Your task to perform on an android device: Open my contact list Image 0: 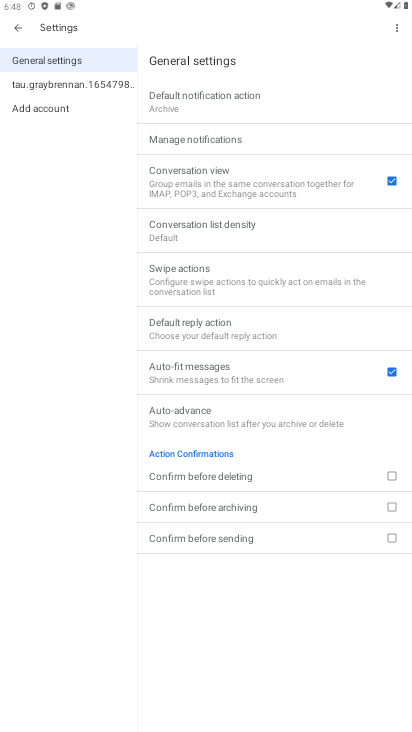
Step 0: press home button
Your task to perform on an android device: Open my contact list Image 1: 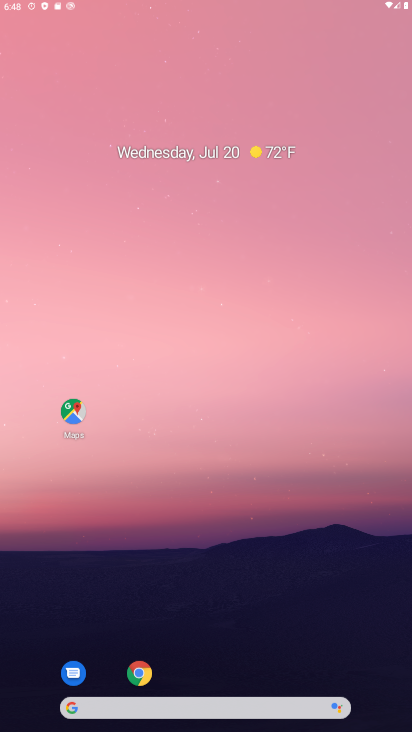
Step 1: drag from (394, 663) to (281, 29)
Your task to perform on an android device: Open my contact list Image 2: 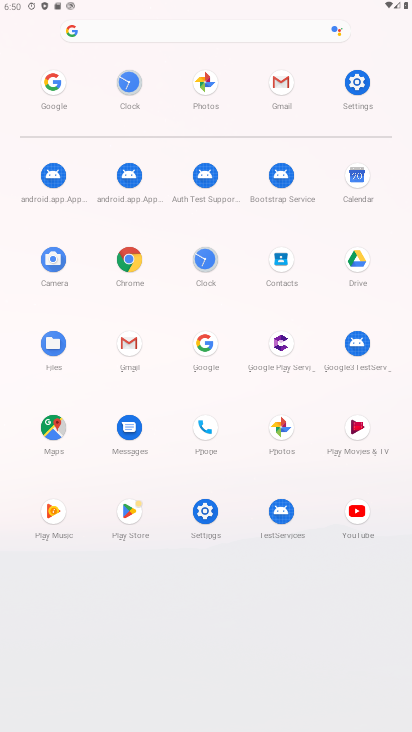
Step 2: click (209, 431)
Your task to perform on an android device: Open my contact list Image 3: 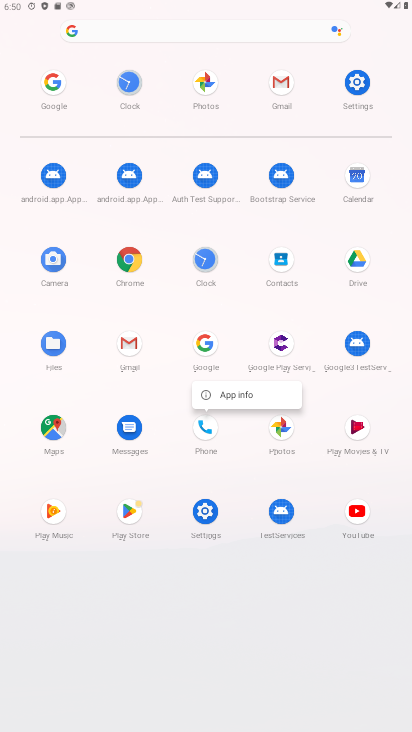
Step 3: click (281, 259)
Your task to perform on an android device: Open my contact list Image 4: 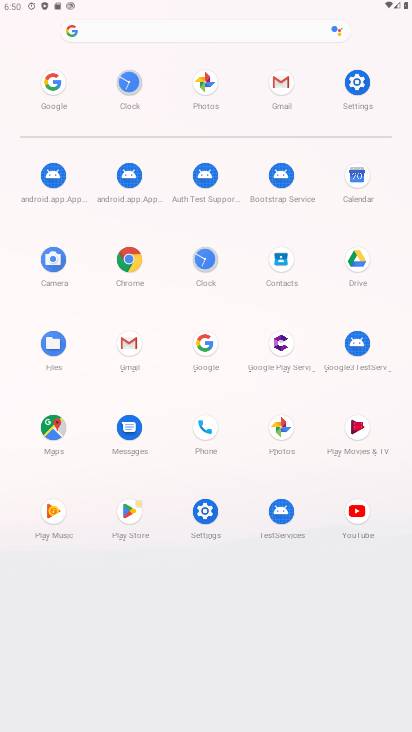
Step 4: click (281, 259)
Your task to perform on an android device: Open my contact list Image 5: 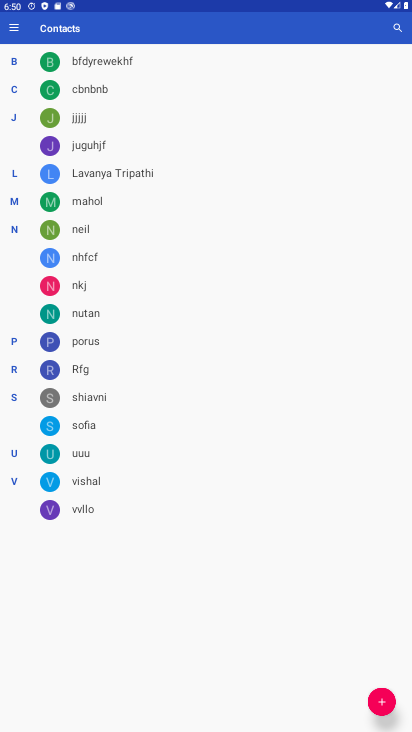
Step 5: task complete